Your task to perform on an android device: Open the Play Movies app and select the watchlist tab. Image 0: 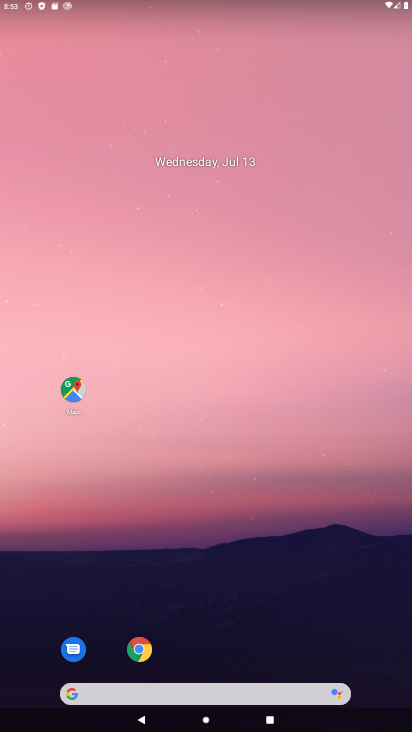
Step 0: drag from (245, 701) to (228, 3)
Your task to perform on an android device: Open the Play Movies app and select the watchlist tab. Image 1: 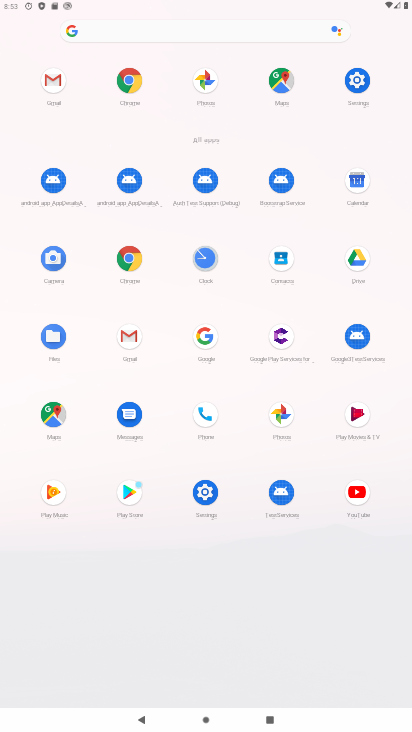
Step 1: click (351, 415)
Your task to perform on an android device: Open the Play Movies app and select the watchlist tab. Image 2: 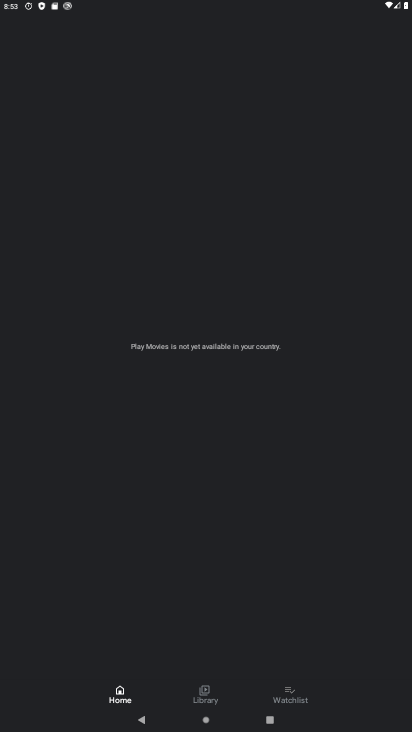
Step 2: click (295, 696)
Your task to perform on an android device: Open the Play Movies app and select the watchlist tab. Image 3: 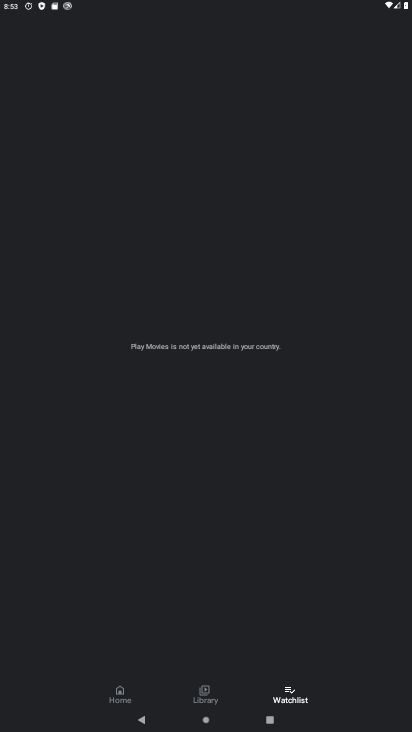
Step 3: task complete